Your task to perform on an android device: Go to sound settings Image 0: 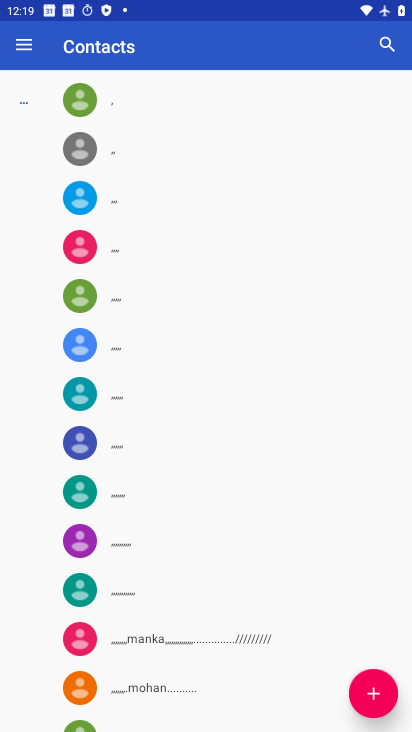
Step 0: drag from (374, 630) to (327, 187)
Your task to perform on an android device: Go to sound settings Image 1: 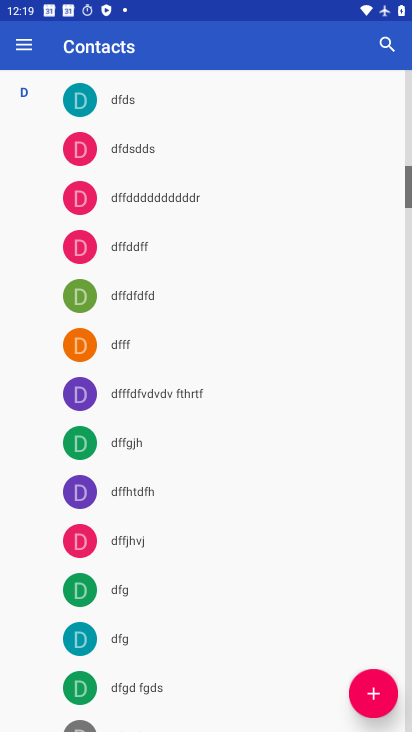
Step 1: press home button
Your task to perform on an android device: Go to sound settings Image 2: 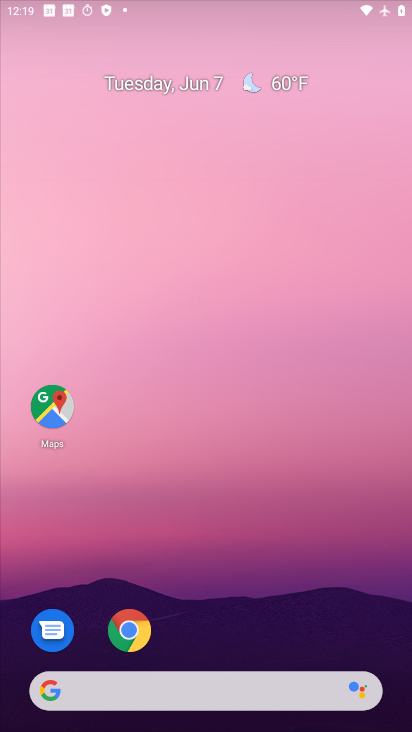
Step 2: drag from (369, 618) to (237, 84)
Your task to perform on an android device: Go to sound settings Image 3: 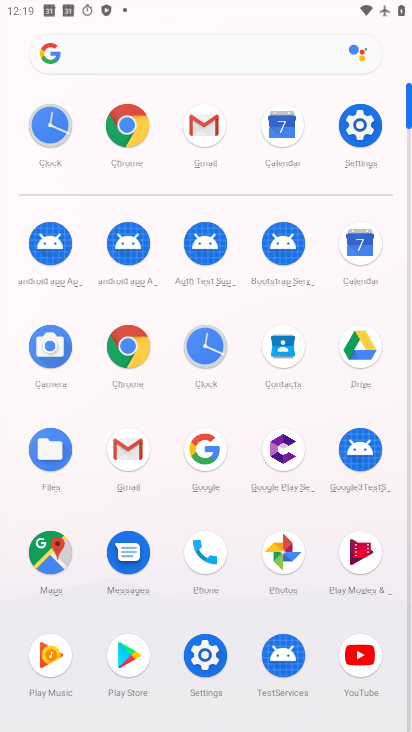
Step 3: click (200, 646)
Your task to perform on an android device: Go to sound settings Image 4: 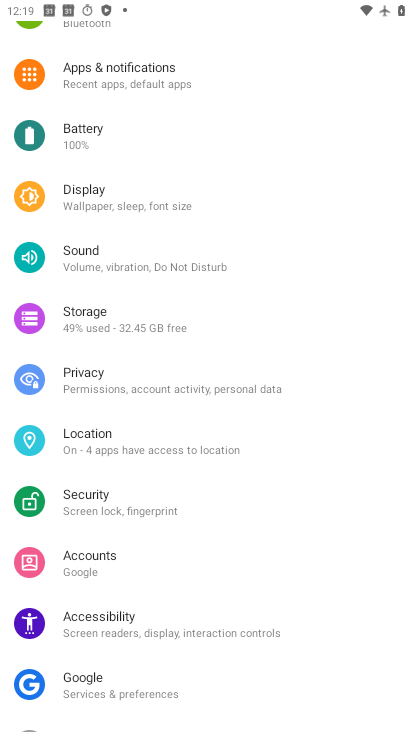
Step 4: click (121, 265)
Your task to perform on an android device: Go to sound settings Image 5: 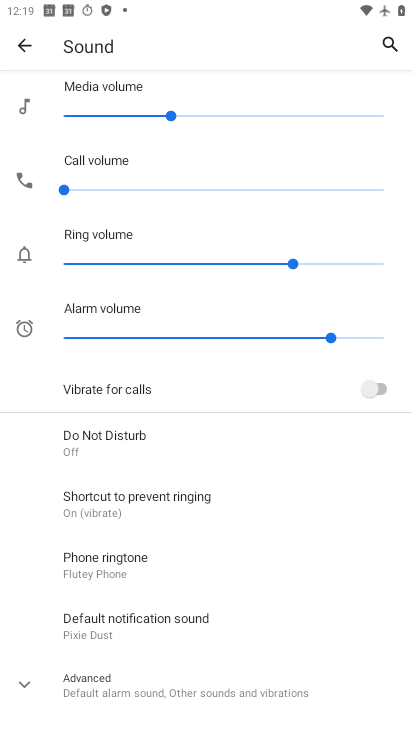
Step 5: task complete